Your task to perform on an android device: Clear the shopping cart on target.com. Search for "razer blackwidow" on target.com, select the first entry, add it to the cart, then select checkout. Image 0: 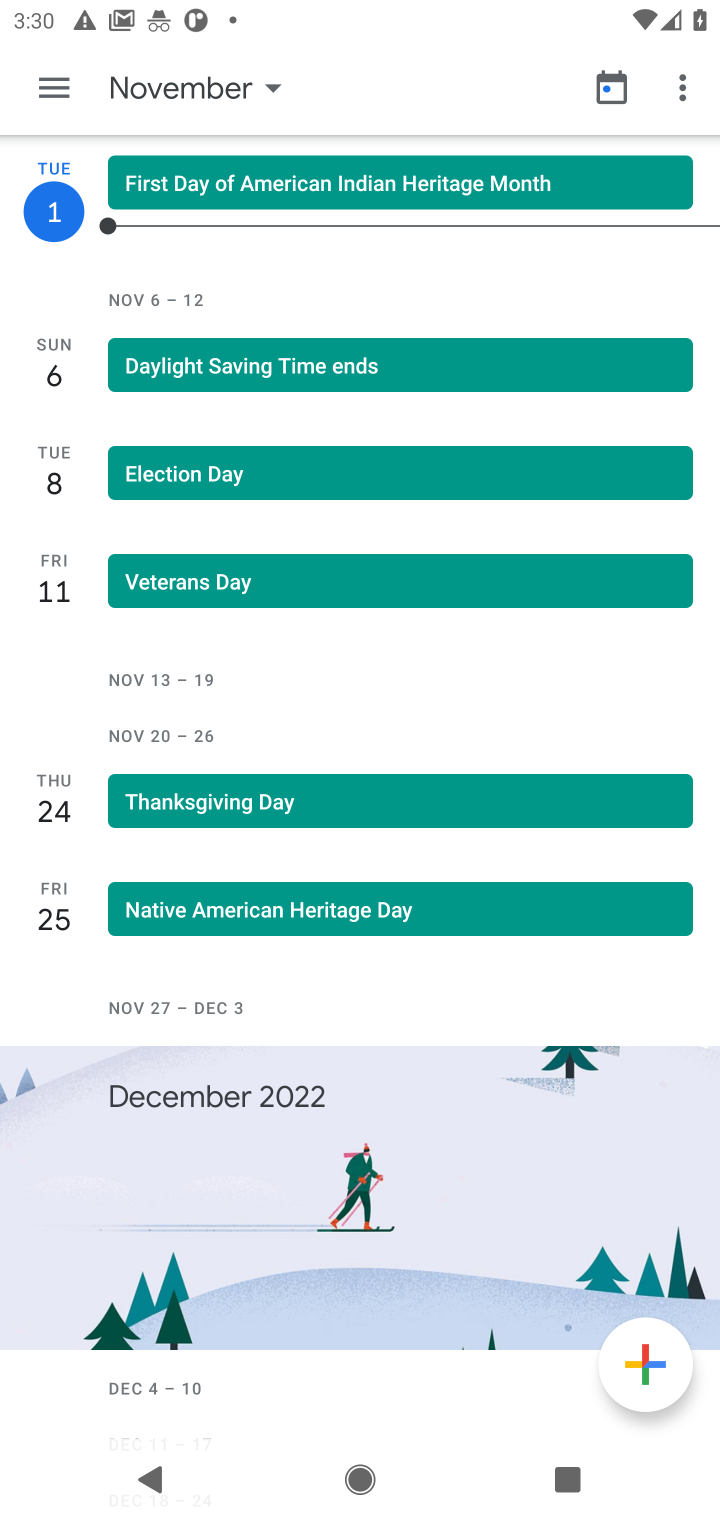
Step 0: press home button
Your task to perform on an android device: Clear the shopping cart on target.com. Search for "razer blackwidow" on target.com, select the first entry, add it to the cart, then select checkout. Image 1: 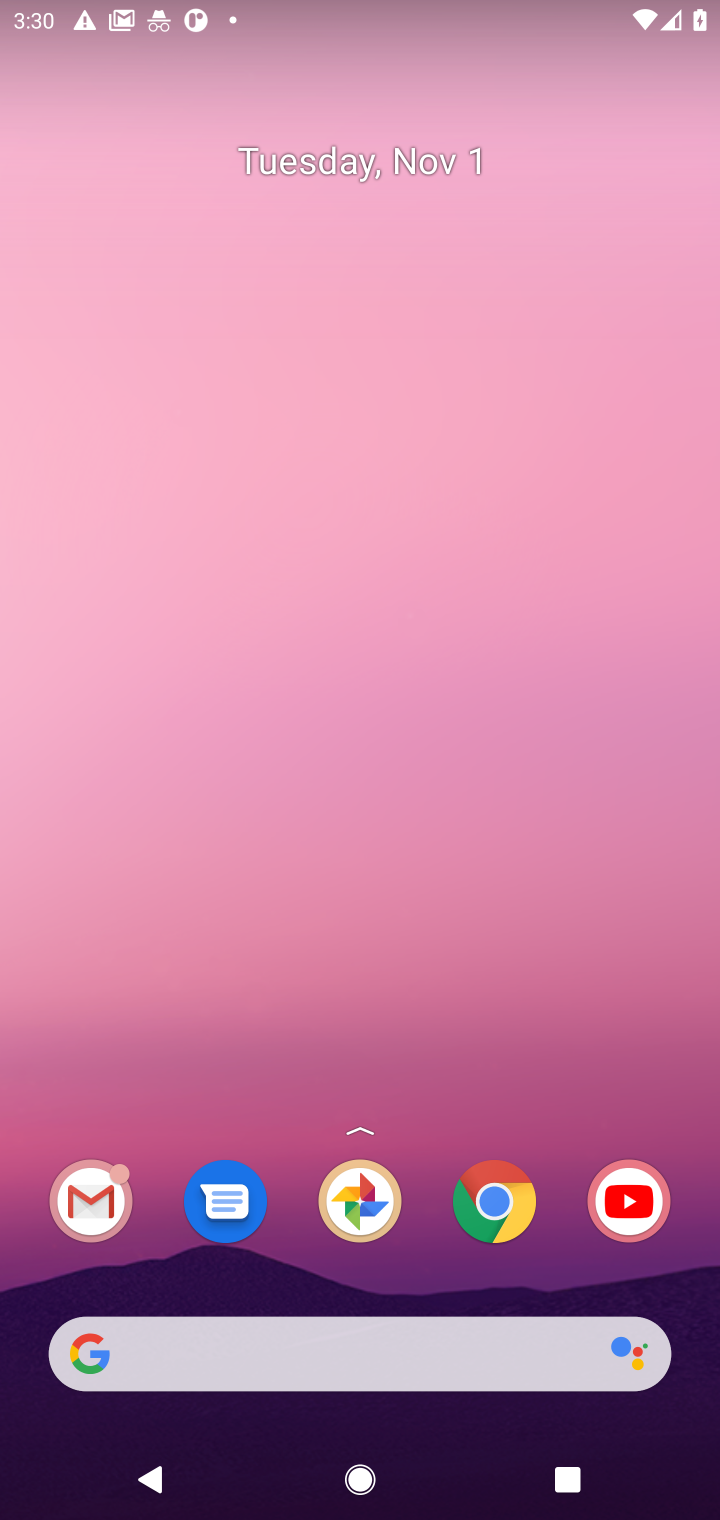
Step 1: drag from (330, 1332) to (356, 253)
Your task to perform on an android device: Clear the shopping cart on target.com. Search for "razer blackwidow" on target.com, select the first entry, add it to the cart, then select checkout. Image 2: 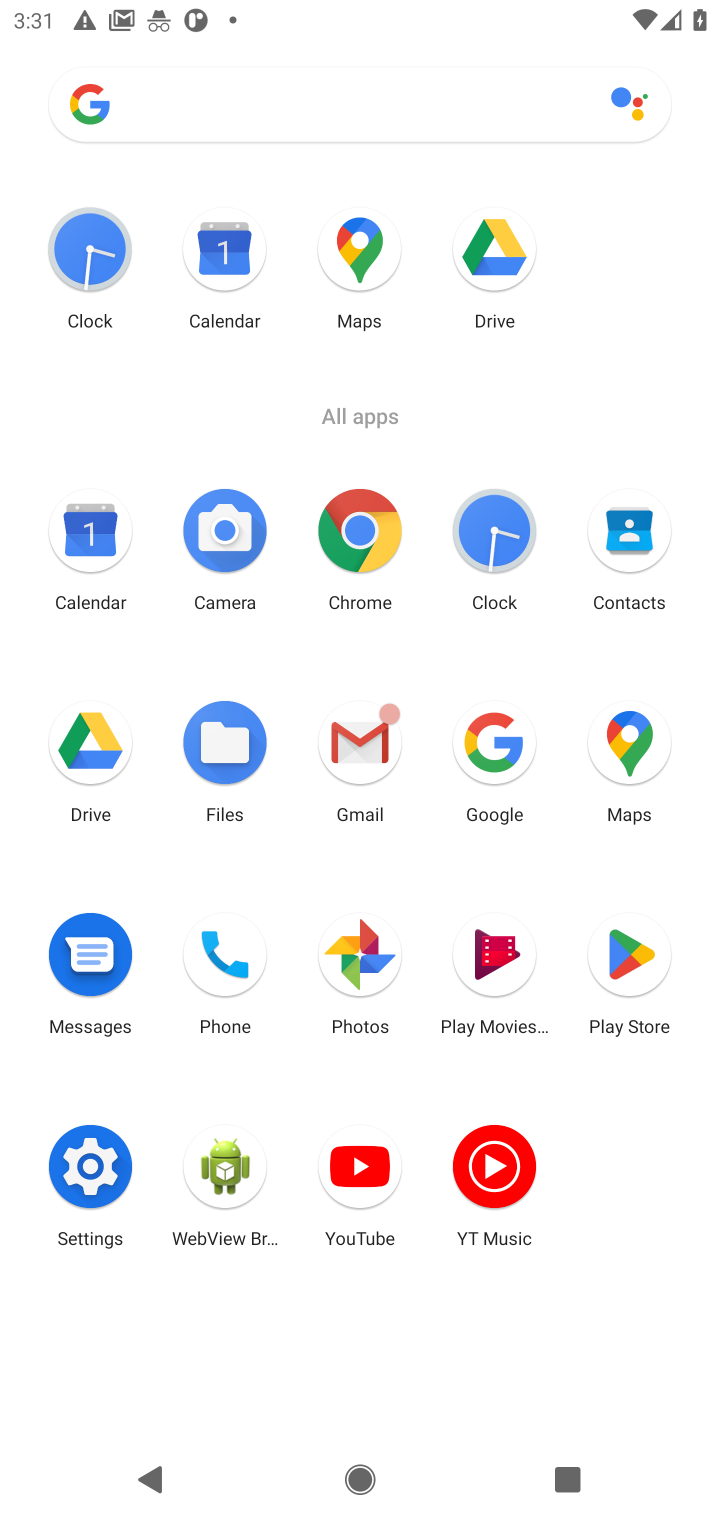
Step 2: drag from (285, 835) to (281, 716)
Your task to perform on an android device: Clear the shopping cart on target.com. Search for "razer blackwidow" on target.com, select the first entry, add it to the cart, then select checkout. Image 3: 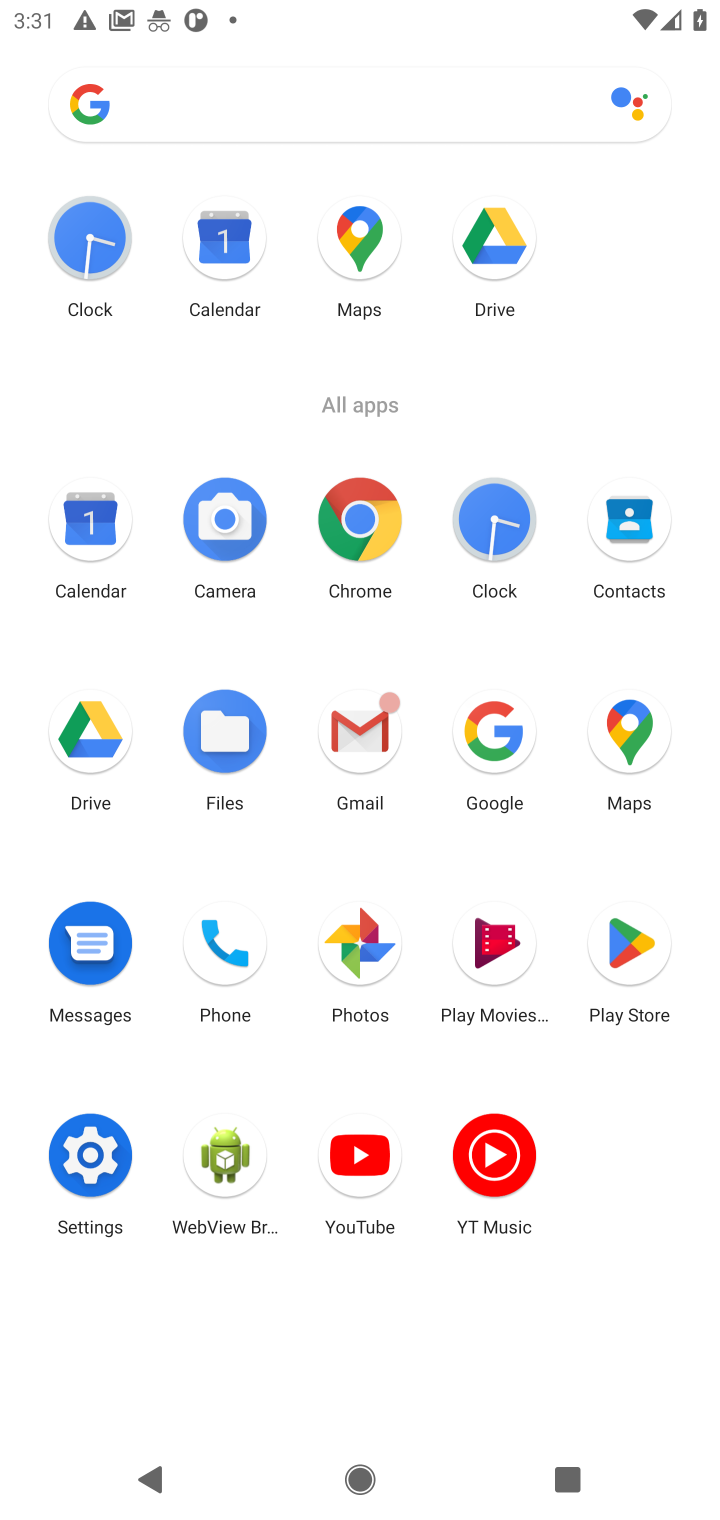
Step 3: click (501, 725)
Your task to perform on an android device: Clear the shopping cart on target.com. Search for "razer blackwidow" on target.com, select the first entry, add it to the cart, then select checkout. Image 4: 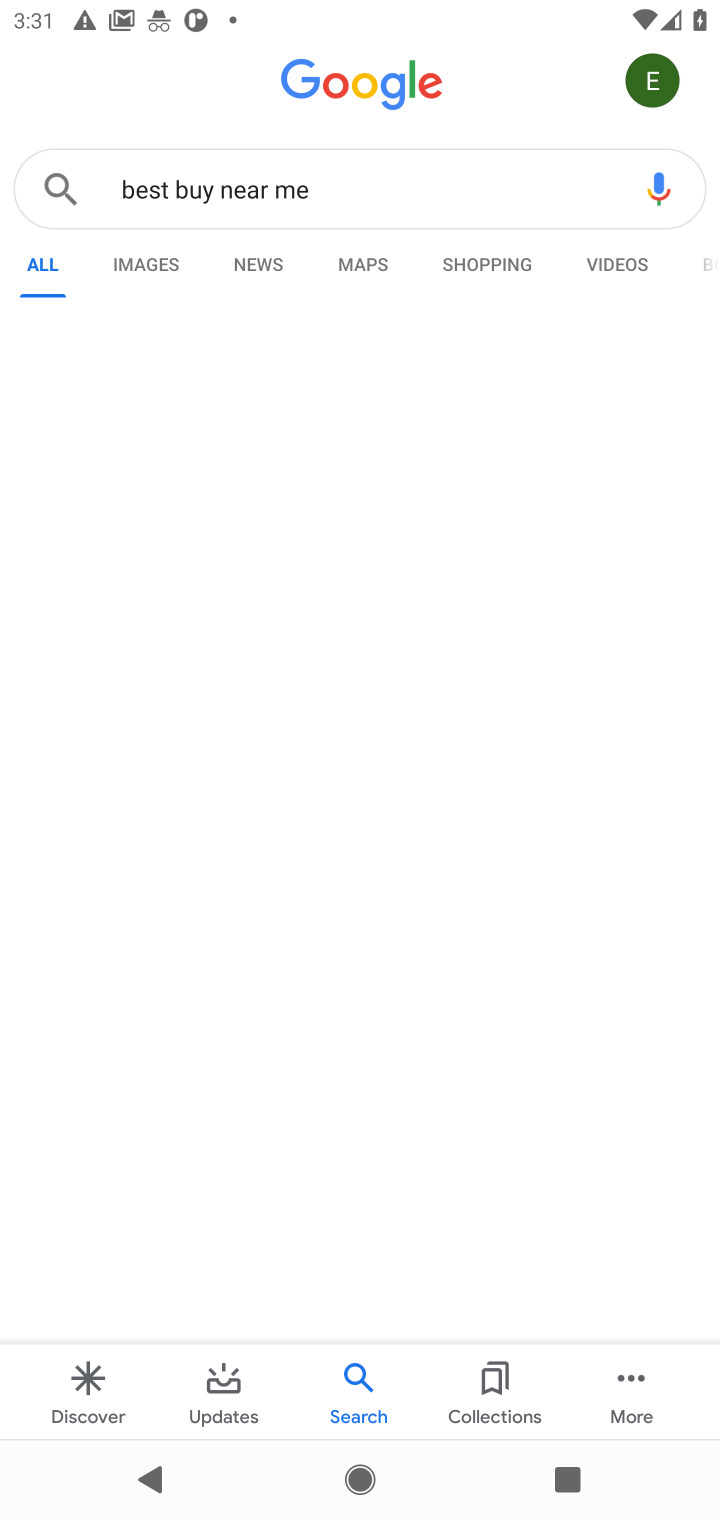
Step 4: click (348, 170)
Your task to perform on an android device: Clear the shopping cart on target.com. Search for "razer blackwidow" on target.com, select the first entry, add it to the cart, then select checkout. Image 5: 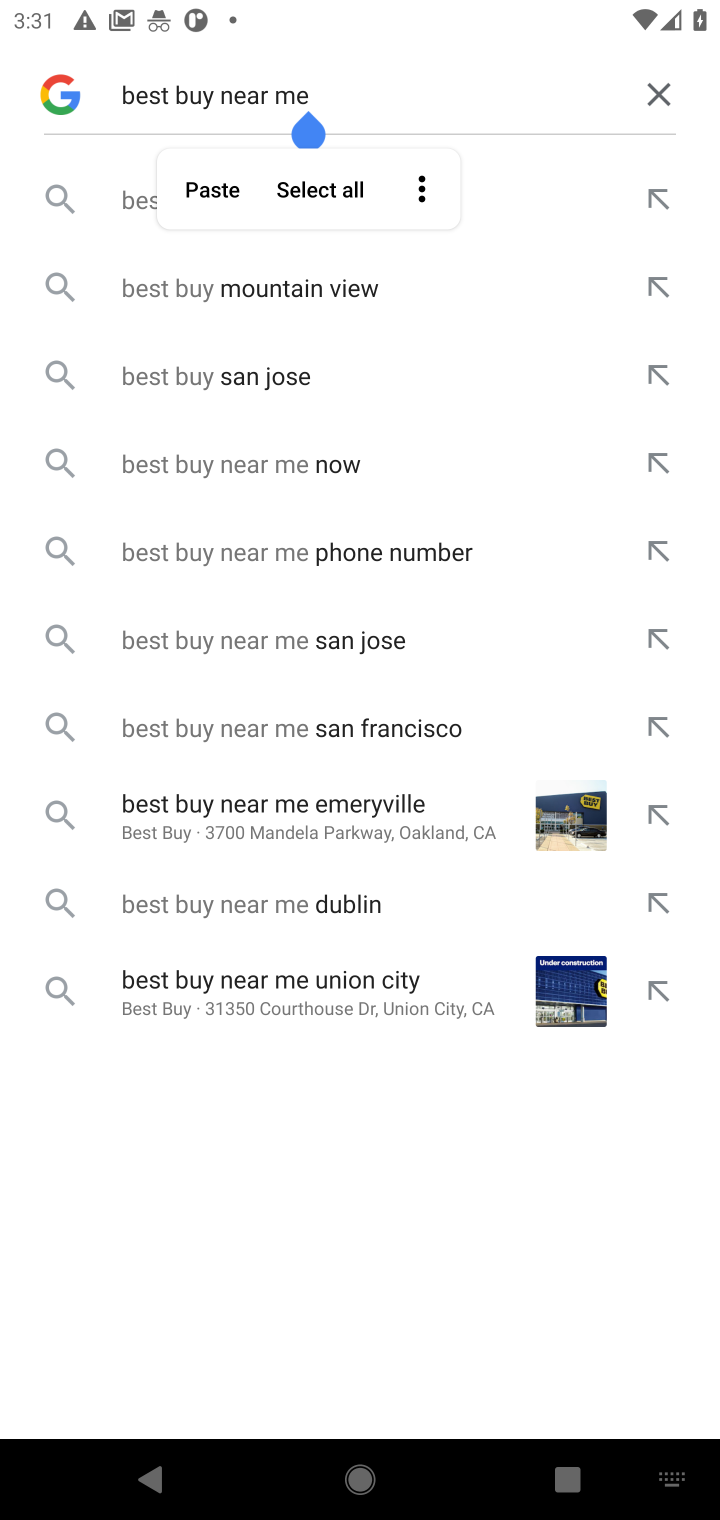
Step 5: click (642, 97)
Your task to perform on an android device: Clear the shopping cart on target.com. Search for "razer blackwidow" on target.com, select the first entry, add it to the cart, then select checkout. Image 6: 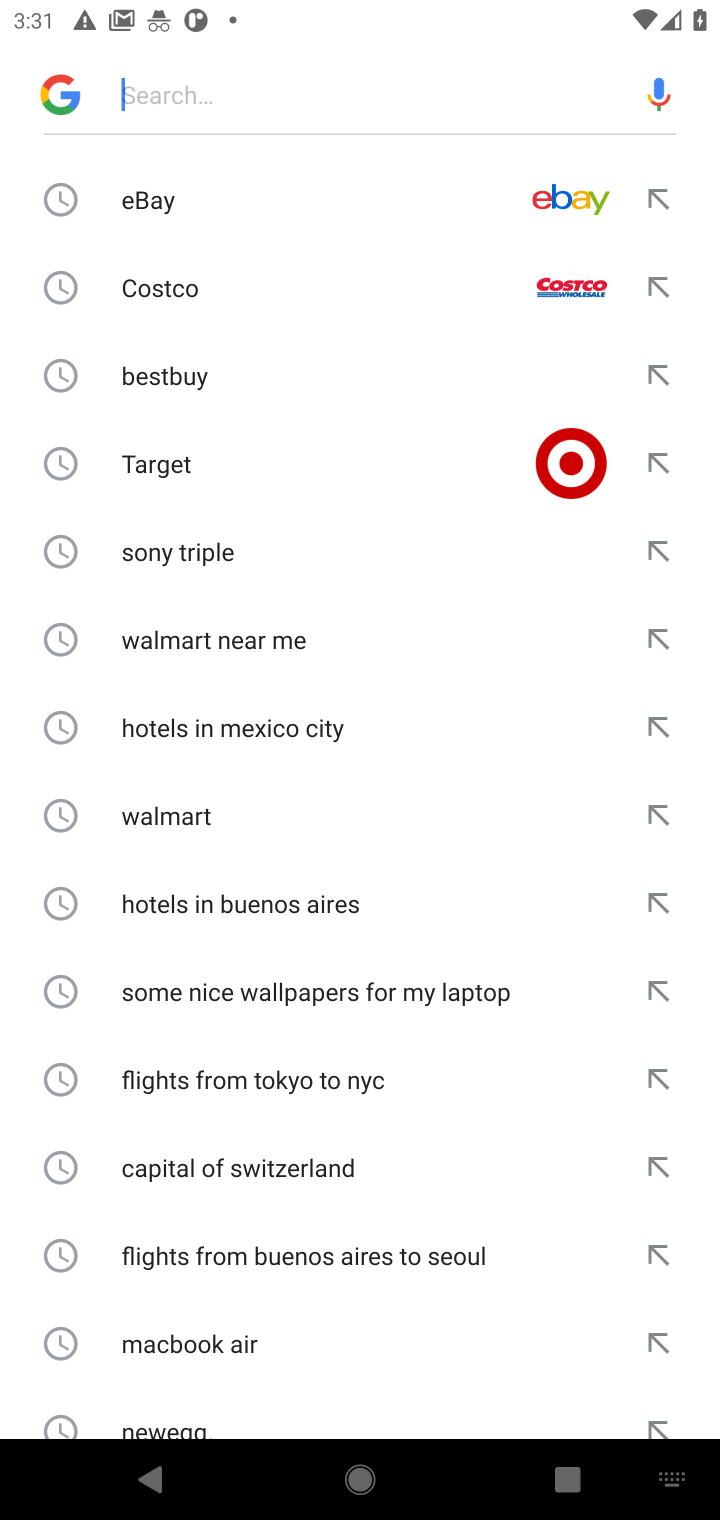
Step 6: click (162, 86)
Your task to perform on an android device: Clear the shopping cart on target.com. Search for "razer blackwidow" on target.com, select the first entry, add it to the cart, then select checkout. Image 7: 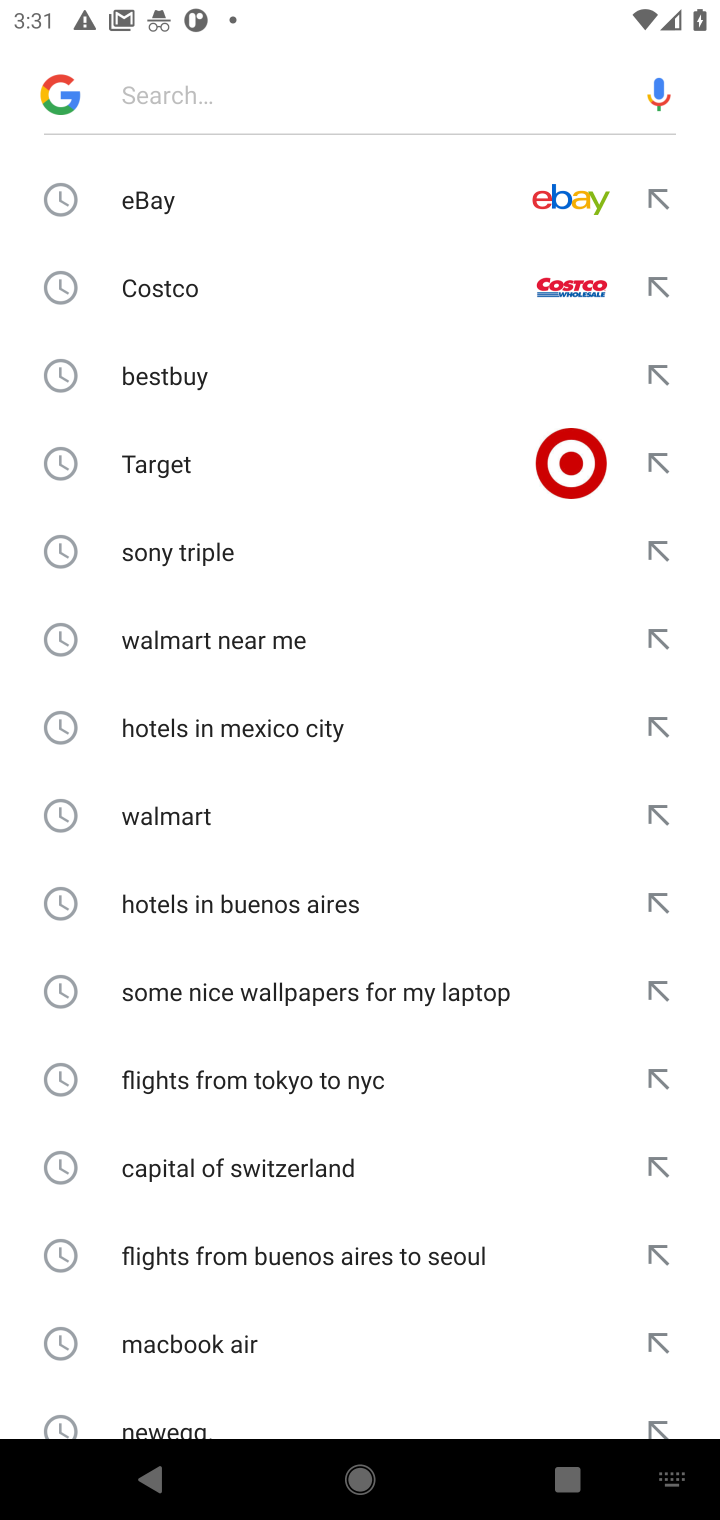
Step 7: type "target "
Your task to perform on an android device: Clear the shopping cart on target.com. Search for "razer blackwidow" on target.com, select the first entry, add it to the cart, then select checkout. Image 8: 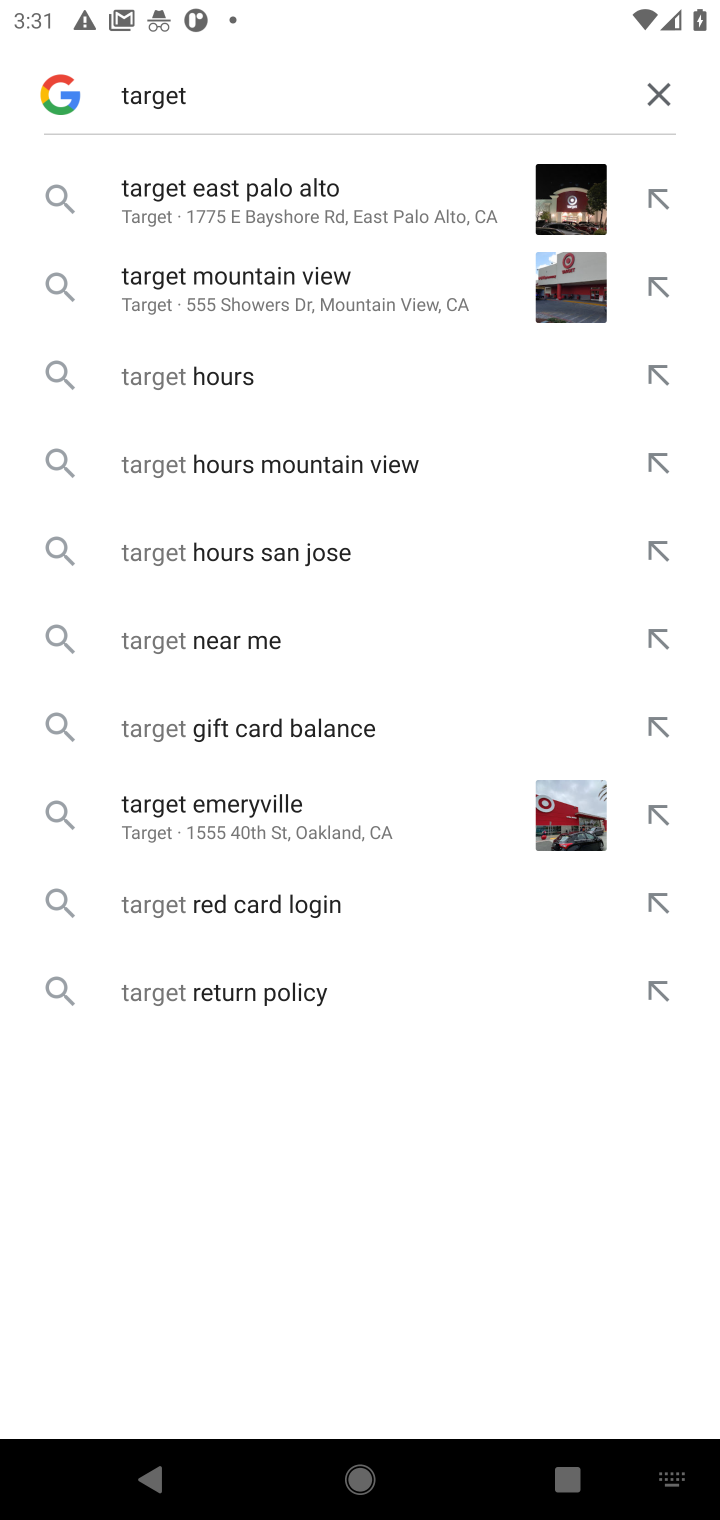
Step 8: click (205, 646)
Your task to perform on an android device: Clear the shopping cart on target.com. Search for "razer blackwidow" on target.com, select the first entry, add it to the cart, then select checkout. Image 9: 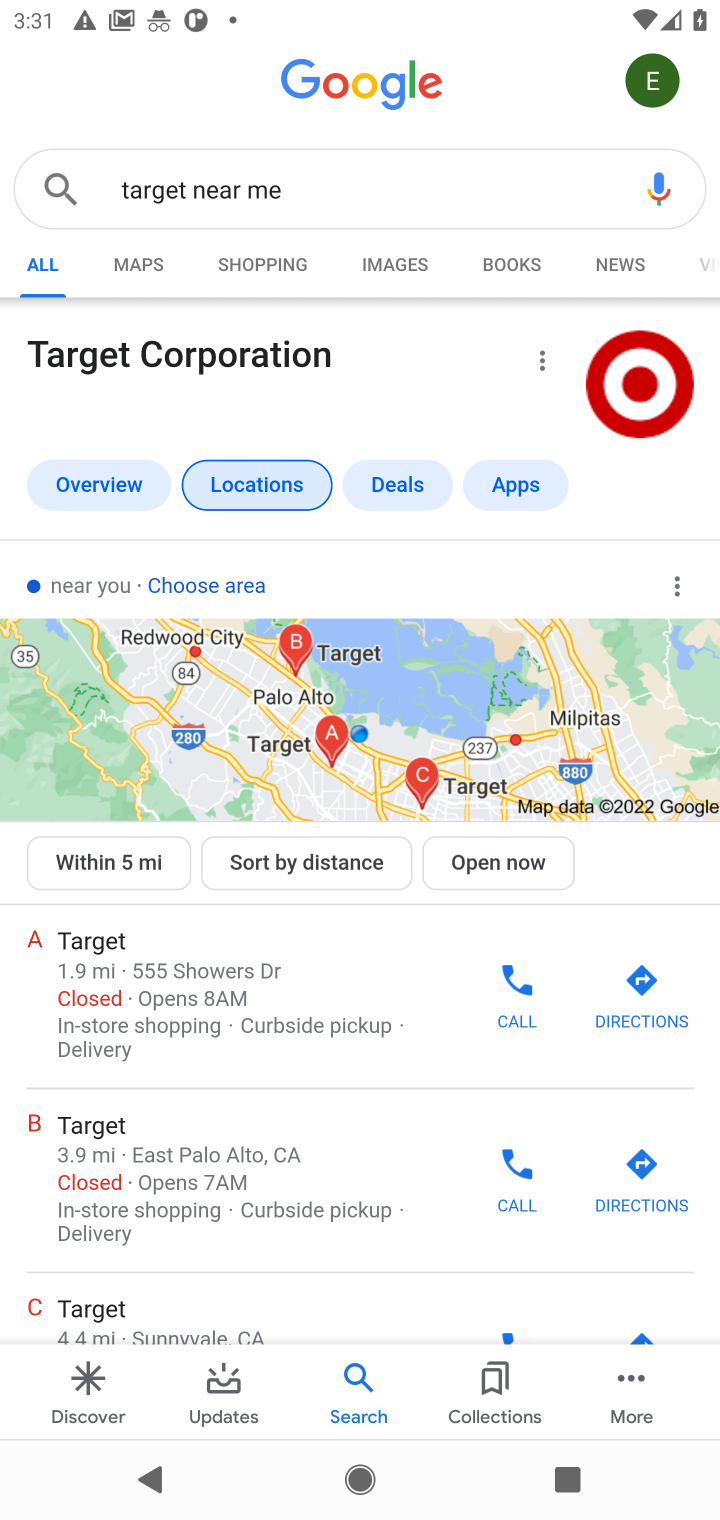
Step 9: drag from (266, 1108) to (364, 328)
Your task to perform on an android device: Clear the shopping cart on target.com. Search for "razer blackwidow" on target.com, select the first entry, add it to the cart, then select checkout. Image 10: 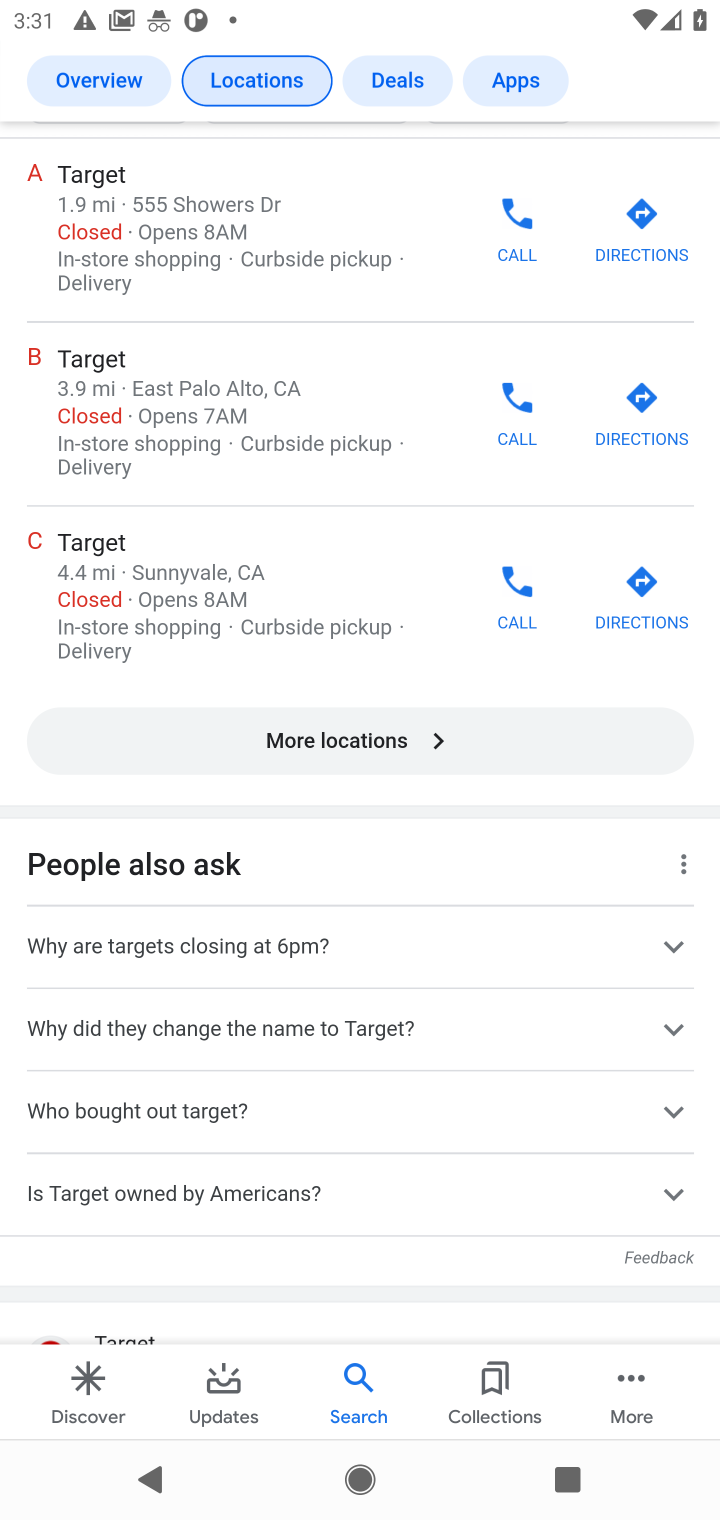
Step 10: drag from (314, 1066) to (391, 387)
Your task to perform on an android device: Clear the shopping cart on target.com. Search for "razer blackwidow" on target.com, select the first entry, add it to the cart, then select checkout. Image 11: 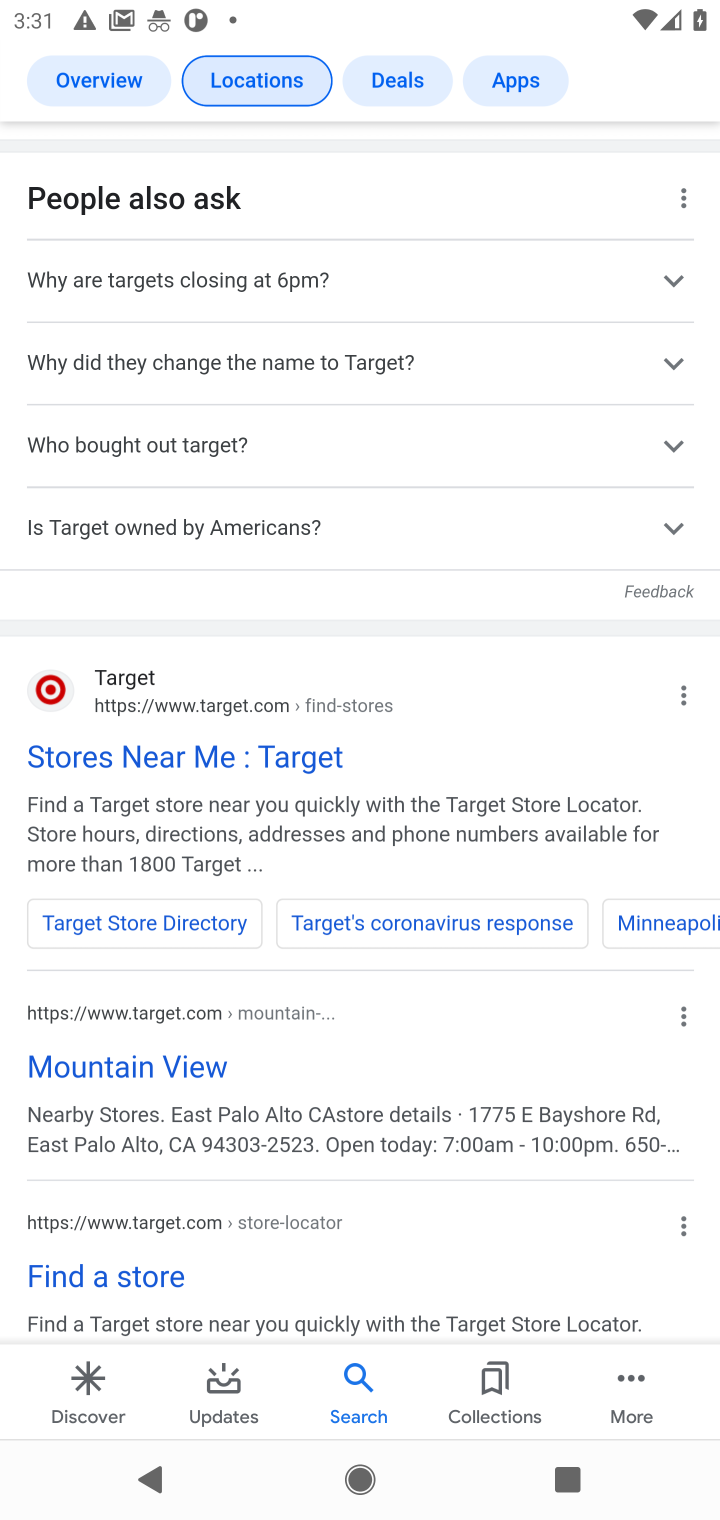
Step 11: click (47, 669)
Your task to perform on an android device: Clear the shopping cart on target.com. Search for "razer blackwidow" on target.com, select the first entry, add it to the cart, then select checkout. Image 12: 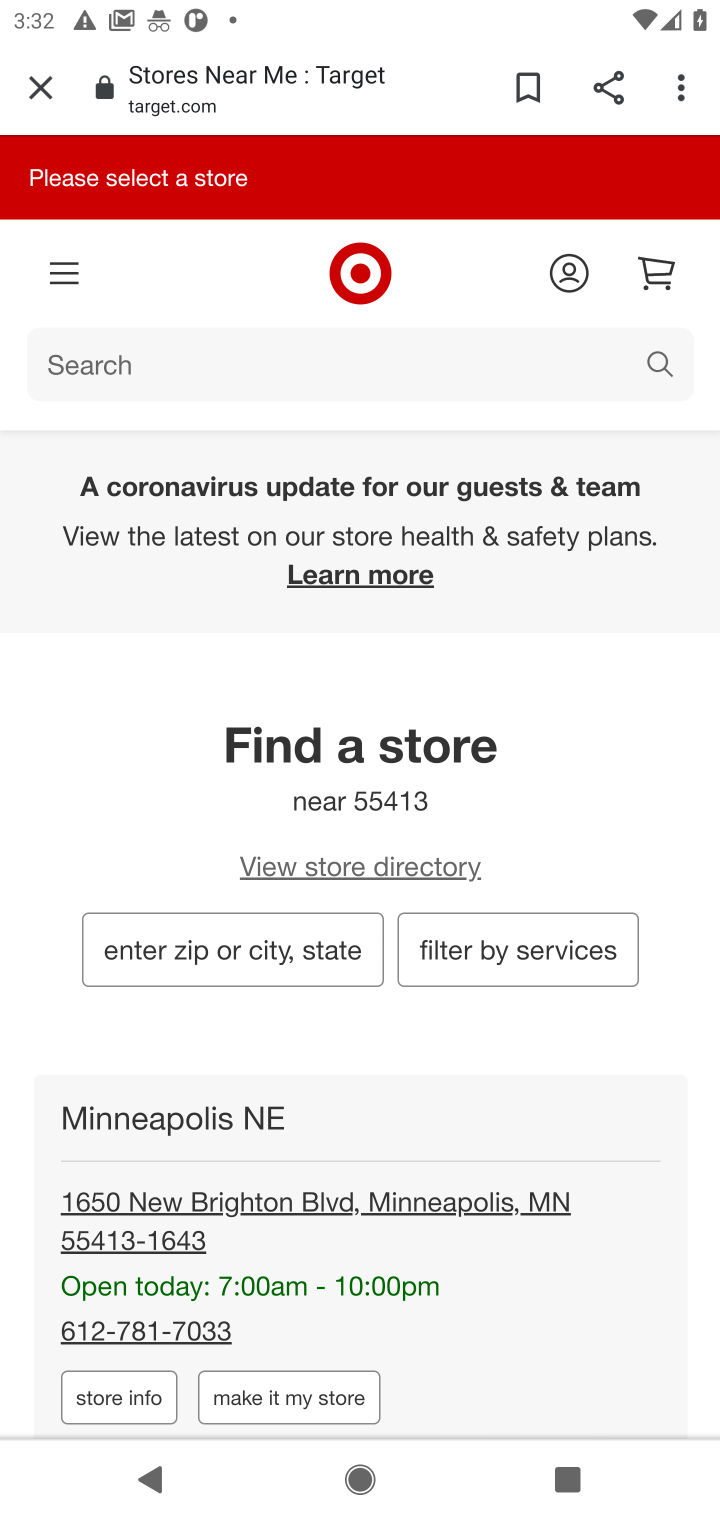
Step 12: click (301, 366)
Your task to perform on an android device: Clear the shopping cart on target.com. Search for "razer blackwidow" on target.com, select the first entry, add it to the cart, then select checkout. Image 13: 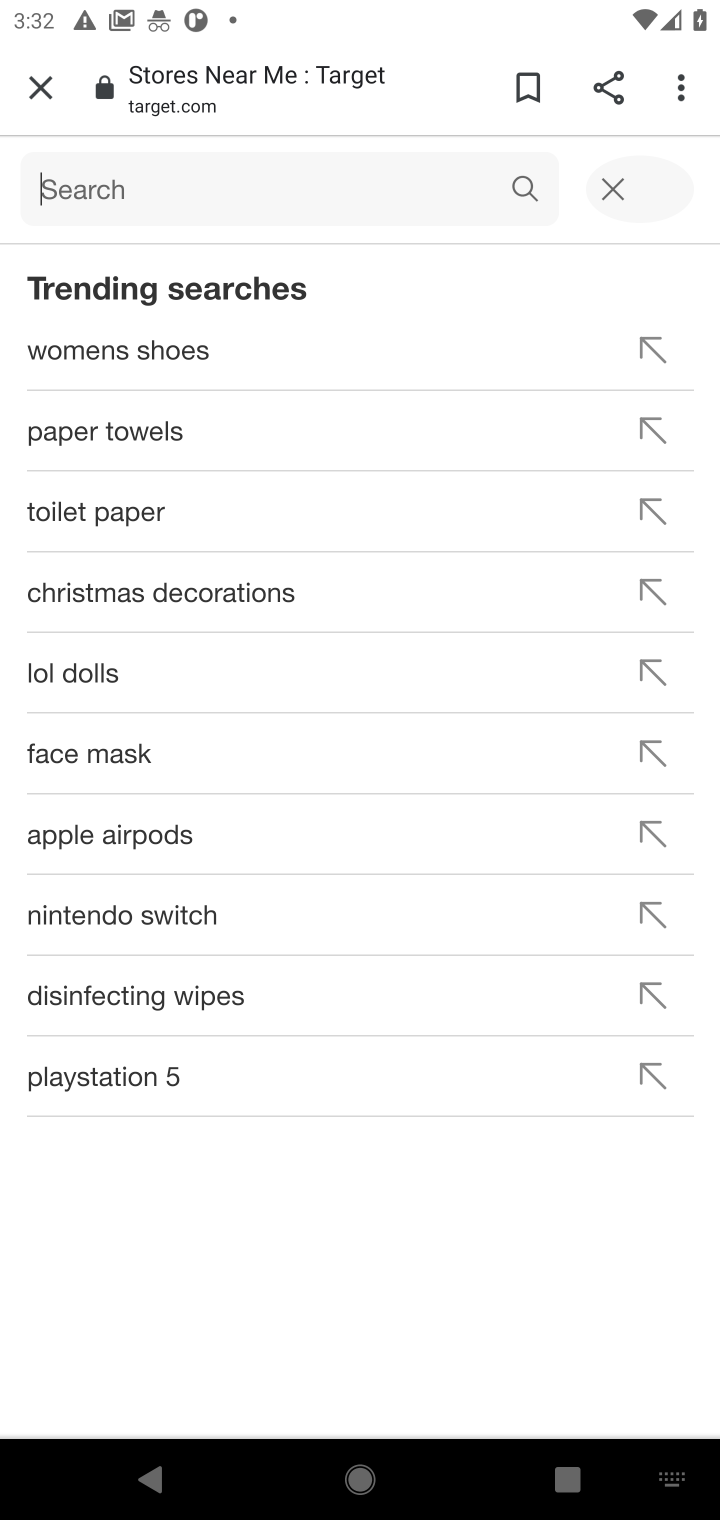
Step 13: click (254, 175)
Your task to perform on an android device: Clear the shopping cart on target.com. Search for "razer blackwidow" on target.com, select the first entry, add it to the cart, then select checkout. Image 14: 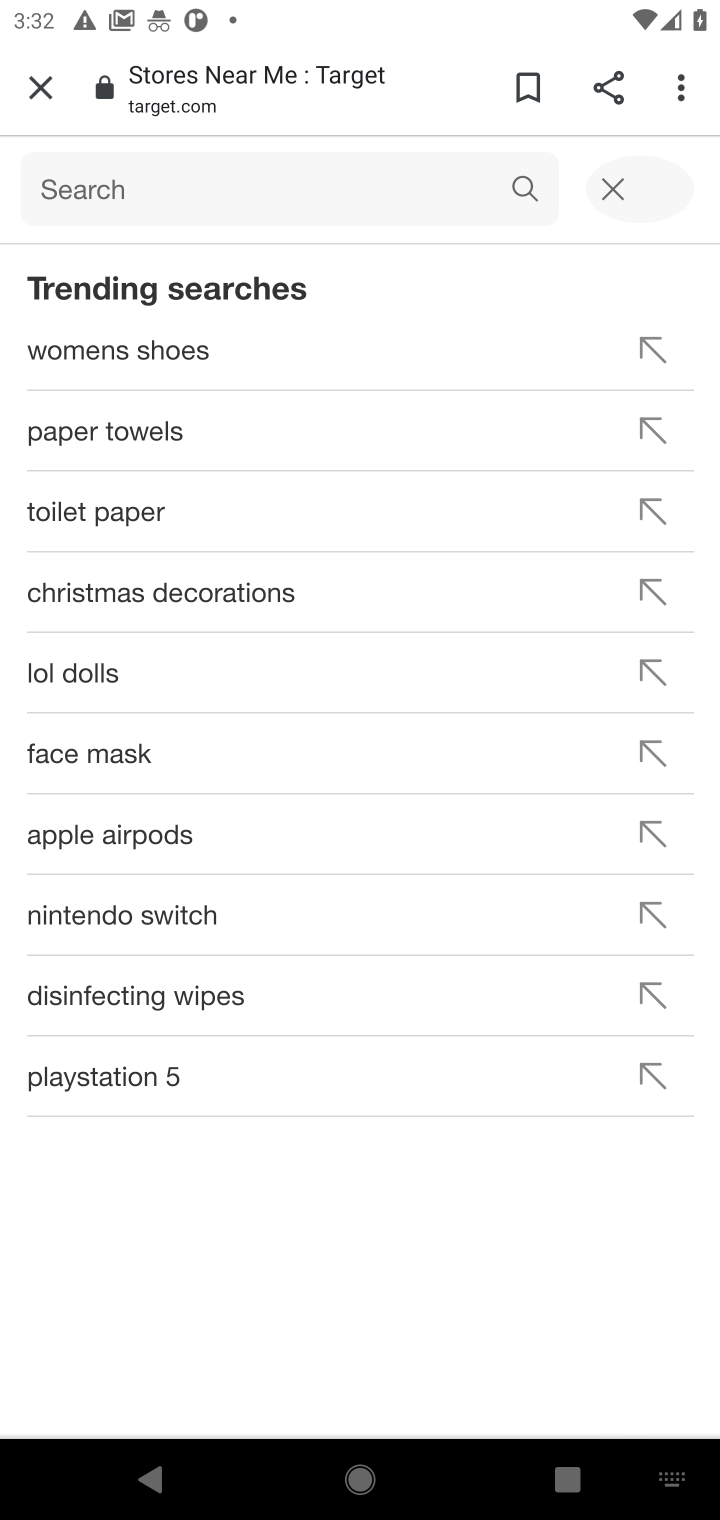
Step 14: type "razer blackwidow "
Your task to perform on an android device: Clear the shopping cart on target.com. Search for "razer blackwidow" on target.com, select the first entry, add it to the cart, then select checkout. Image 15: 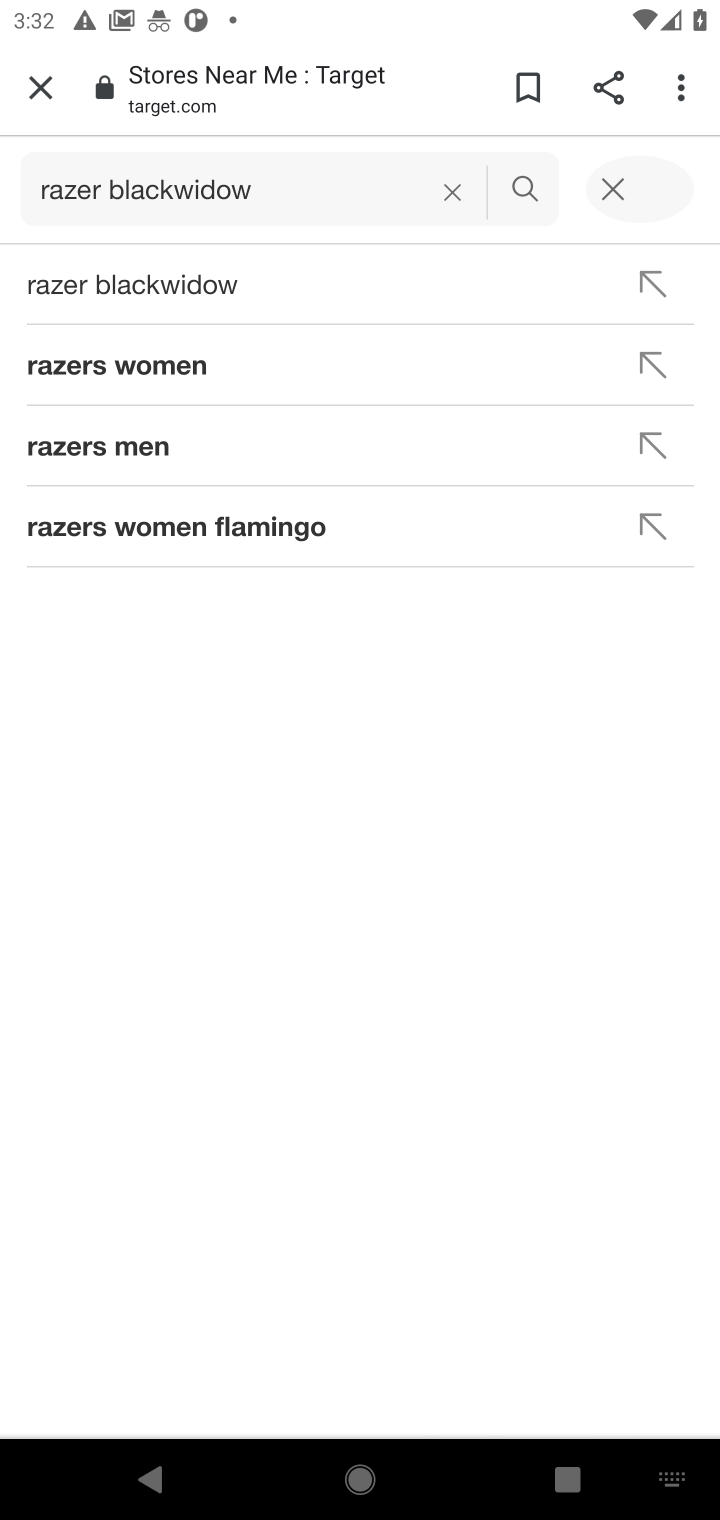
Step 15: click (100, 272)
Your task to perform on an android device: Clear the shopping cart on target.com. Search for "razer blackwidow" on target.com, select the first entry, add it to the cart, then select checkout. Image 16: 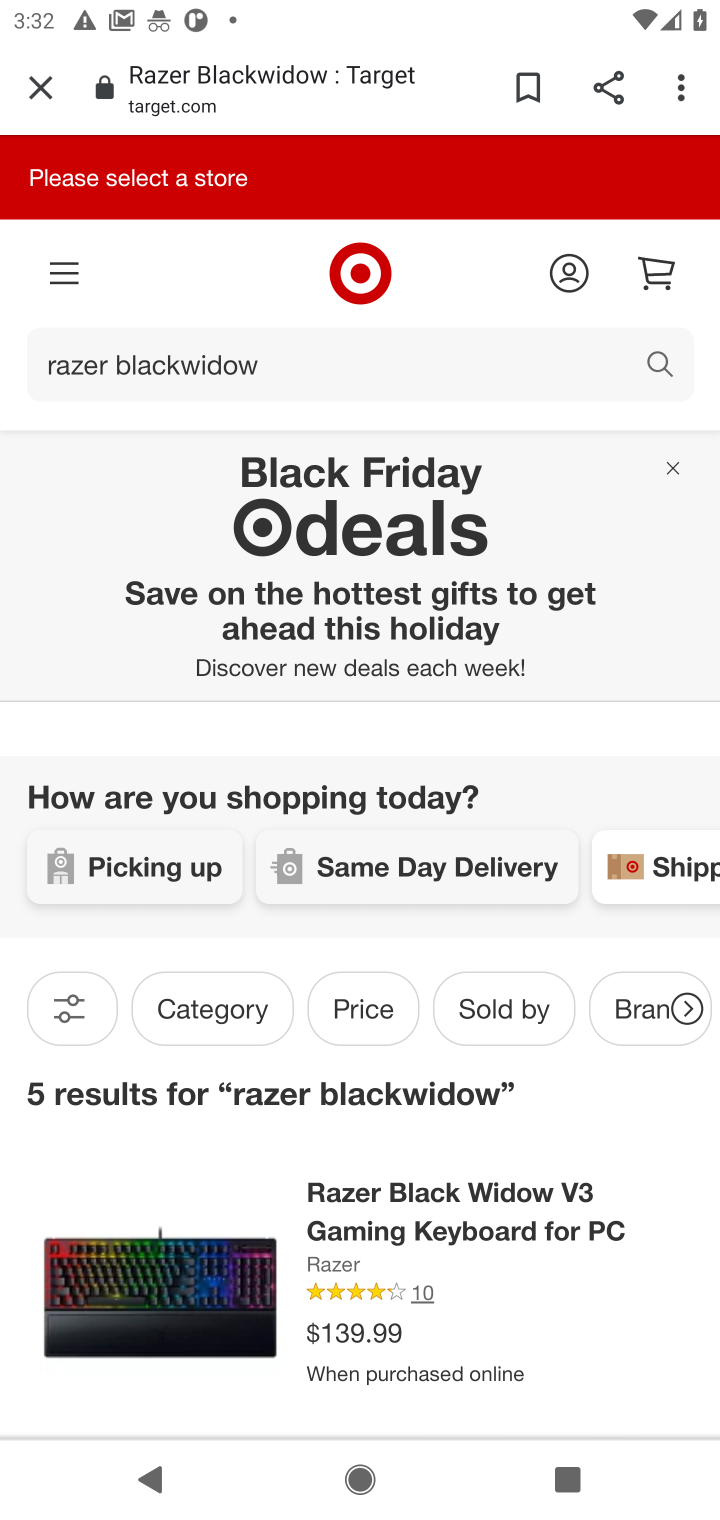
Step 16: drag from (229, 1218) to (266, 659)
Your task to perform on an android device: Clear the shopping cart on target.com. Search for "razer blackwidow" on target.com, select the first entry, add it to the cart, then select checkout. Image 17: 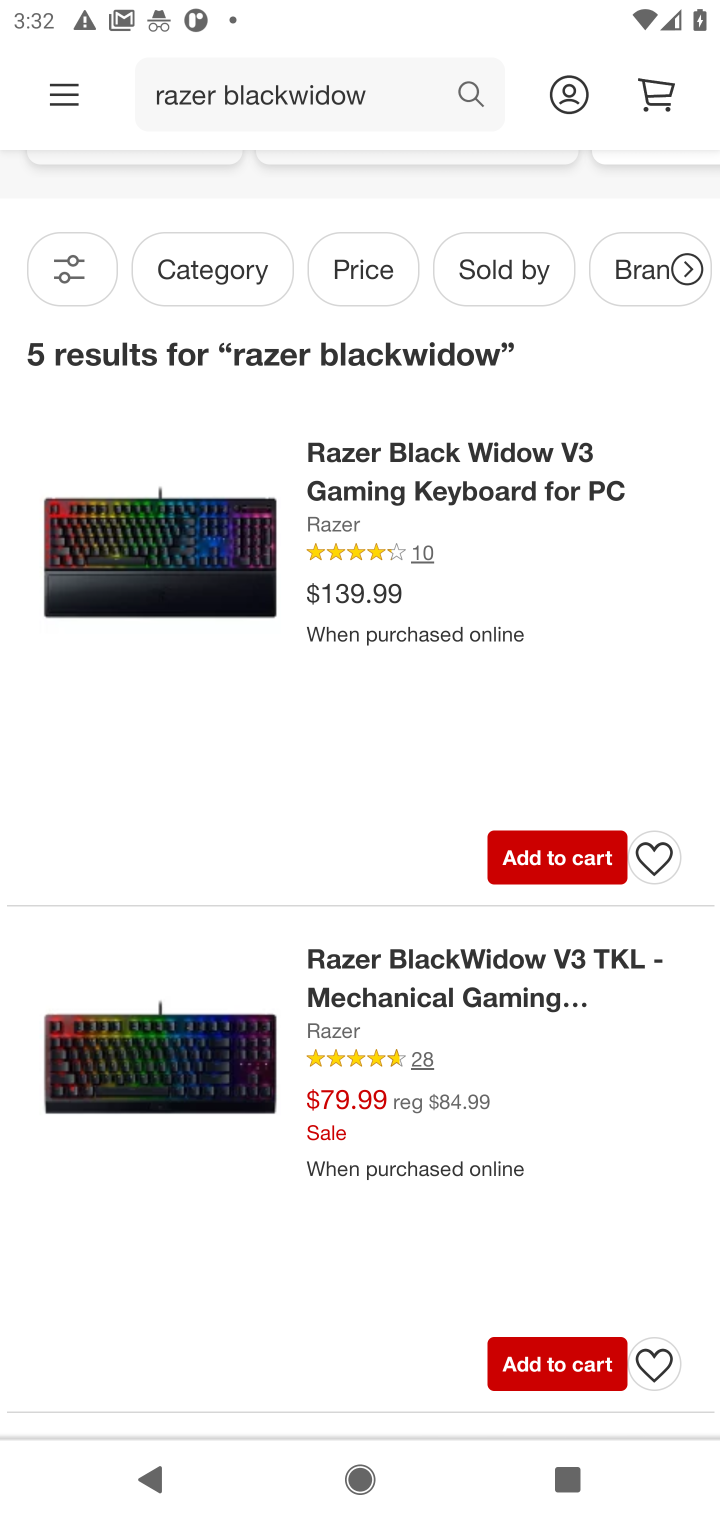
Step 17: drag from (537, 1040) to (540, 890)
Your task to perform on an android device: Clear the shopping cart on target.com. Search for "razer blackwidow" on target.com, select the first entry, add it to the cart, then select checkout. Image 18: 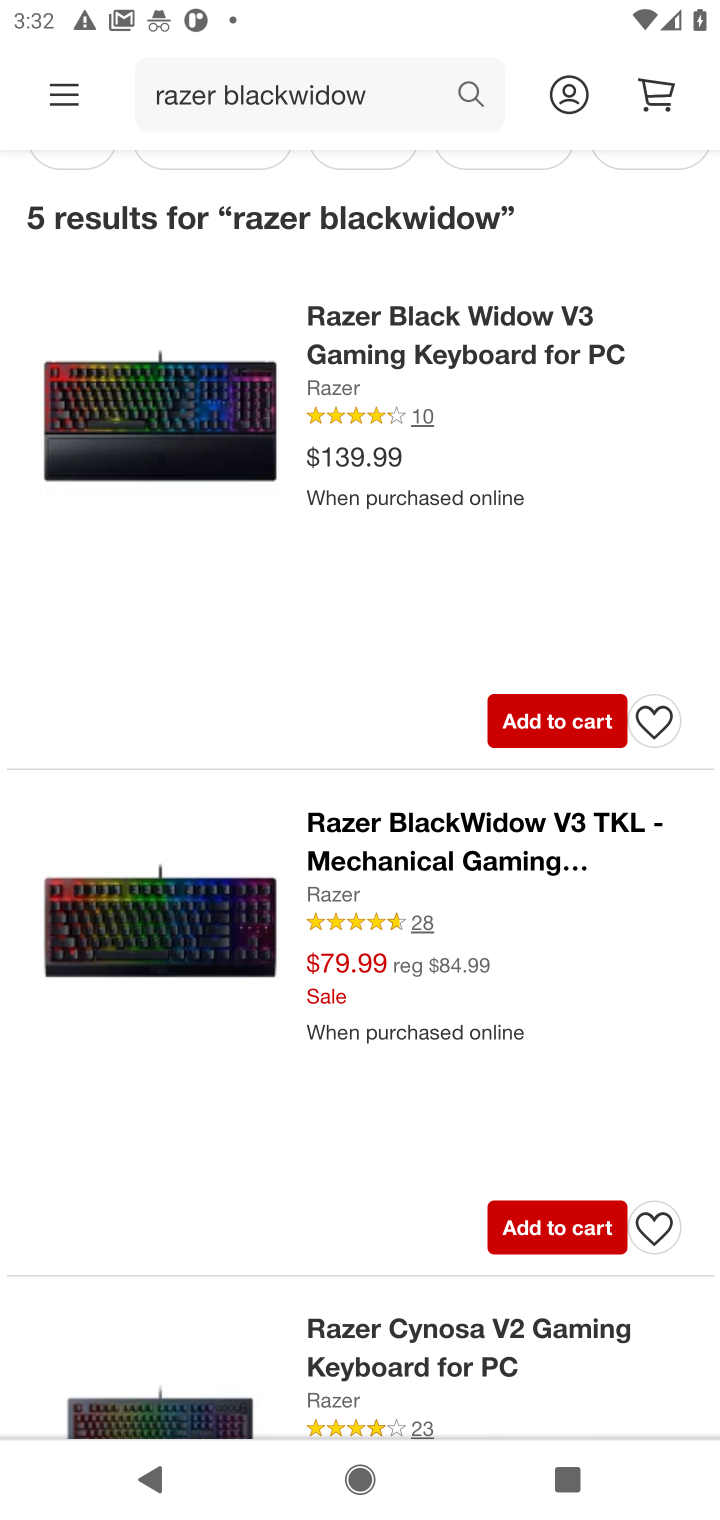
Step 18: click (532, 715)
Your task to perform on an android device: Clear the shopping cart on target.com. Search for "razer blackwidow" on target.com, select the first entry, add it to the cart, then select checkout. Image 19: 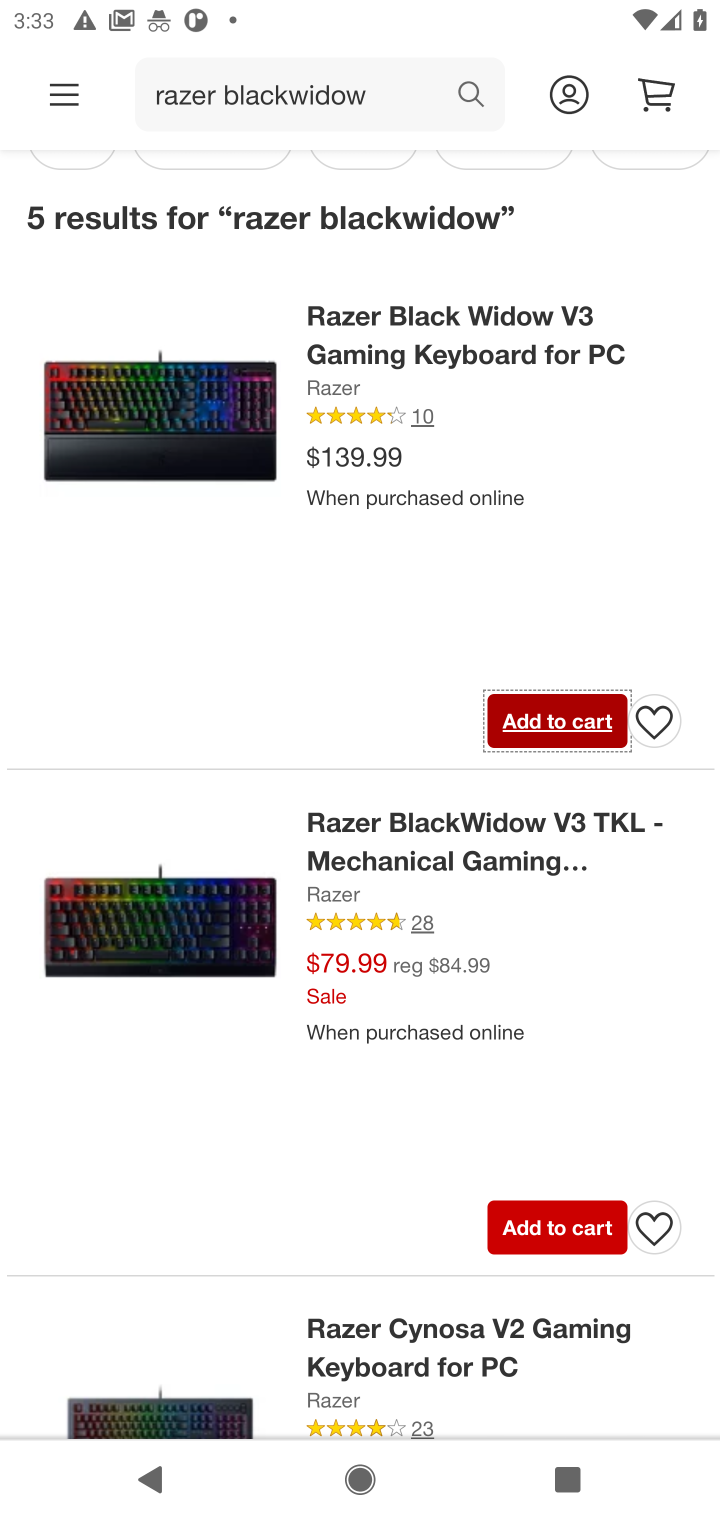
Step 19: click (536, 725)
Your task to perform on an android device: Clear the shopping cart on target.com. Search for "razer blackwidow" on target.com, select the first entry, add it to the cart, then select checkout. Image 20: 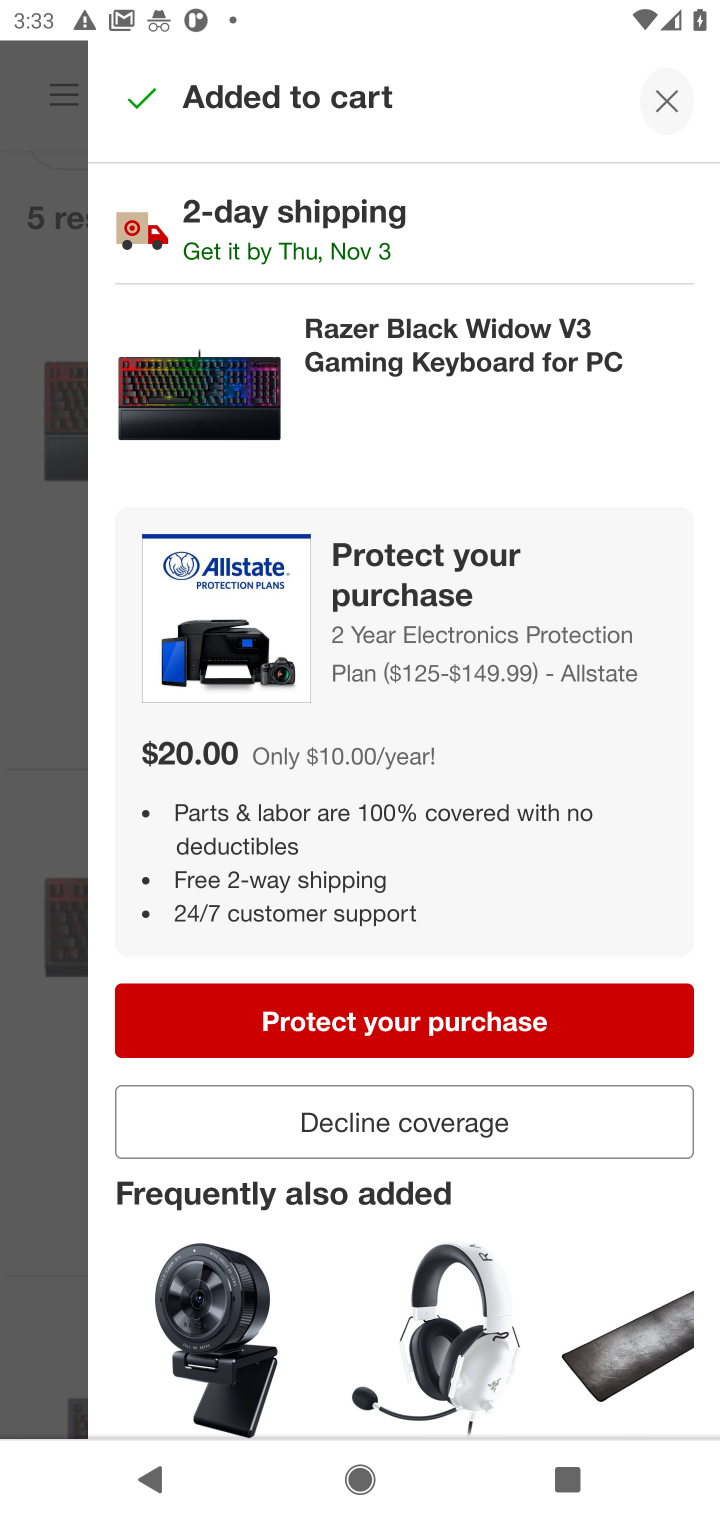
Step 20: task complete